Your task to perform on an android device: Open Google Chrome and click the shortcut for Amazon.com Image 0: 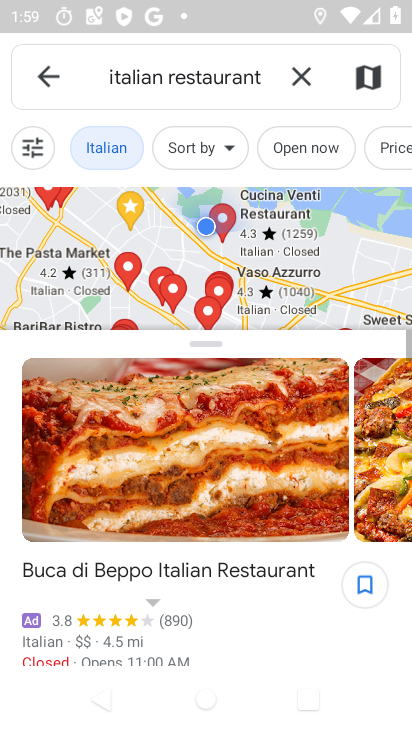
Step 0: press home button
Your task to perform on an android device: Open Google Chrome and click the shortcut for Amazon.com Image 1: 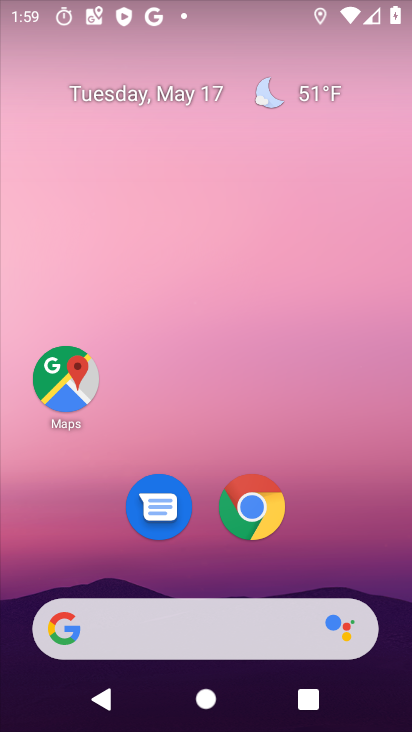
Step 1: click (254, 507)
Your task to perform on an android device: Open Google Chrome and click the shortcut for Amazon.com Image 2: 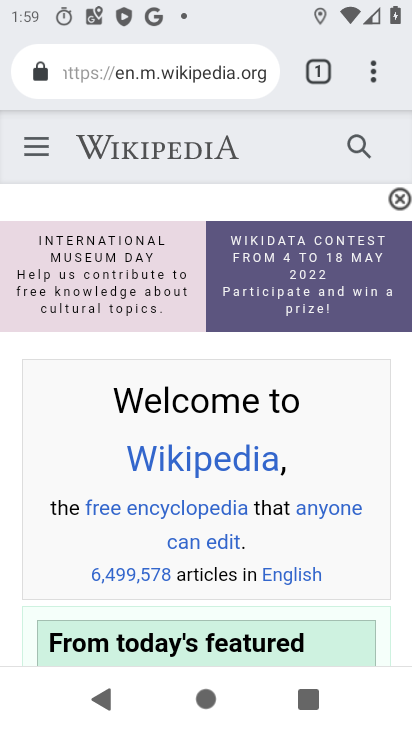
Step 2: press back button
Your task to perform on an android device: Open Google Chrome and click the shortcut for Amazon.com Image 3: 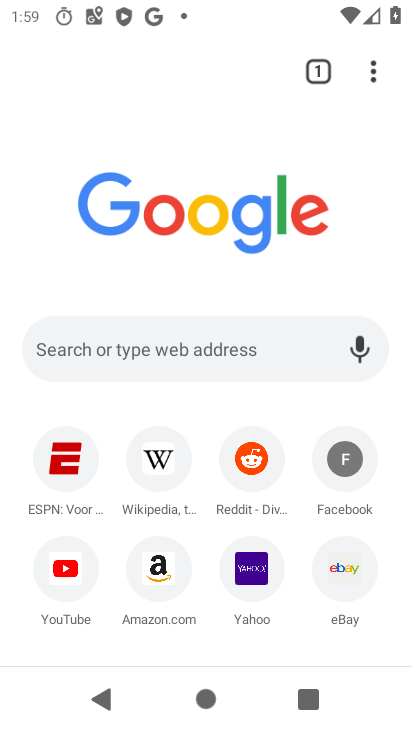
Step 3: click (161, 574)
Your task to perform on an android device: Open Google Chrome and click the shortcut for Amazon.com Image 4: 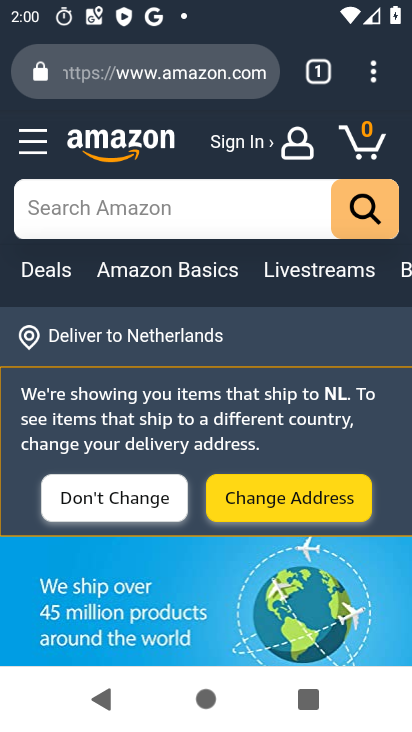
Step 4: task complete